Your task to perform on an android device: open app "Google News" Image 0: 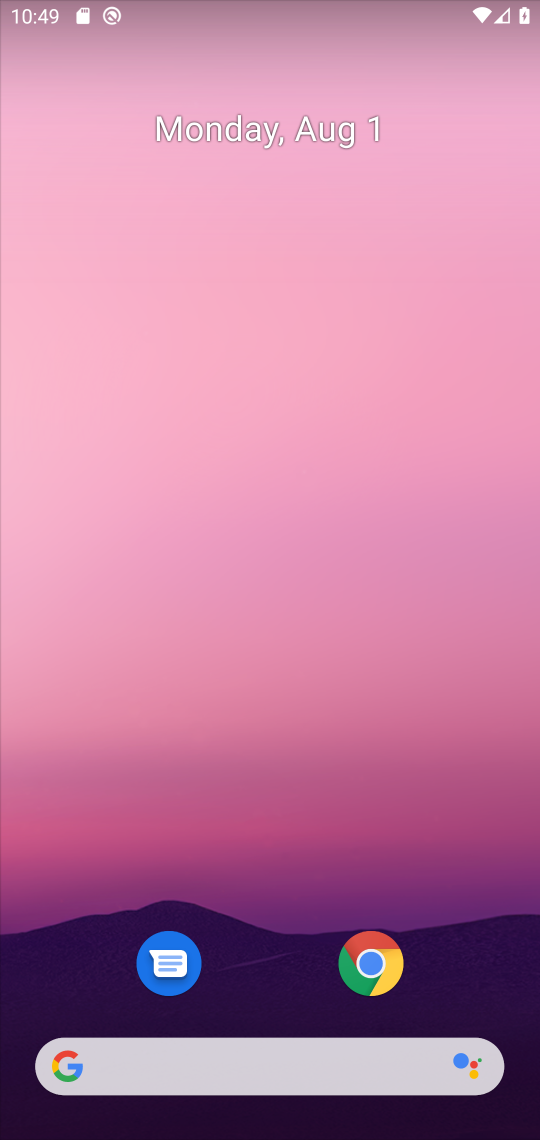
Step 0: drag from (283, 624) to (311, 88)
Your task to perform on an android device: open app "Google News" Image 1: 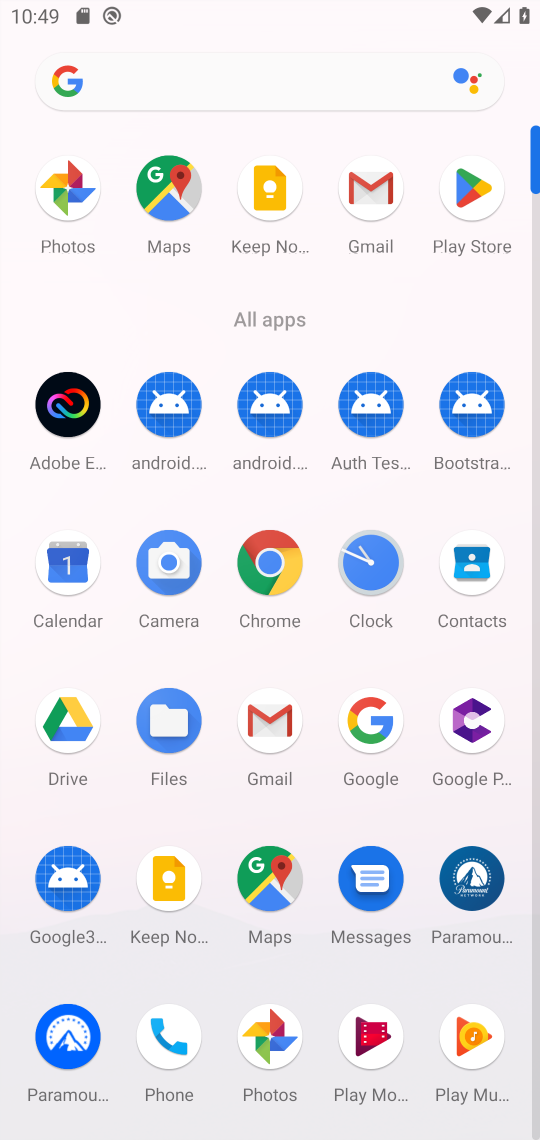
Step 1: click (471, 226)
Your task to perform on an android device: open app "Google News" Image 2: 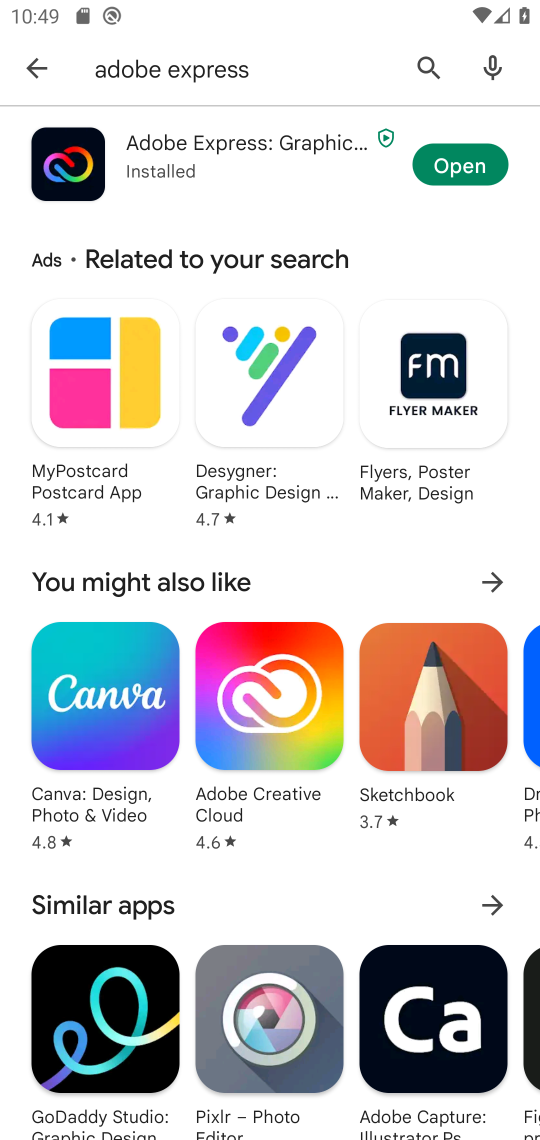
Step 2: click (225, 64)
Your task to perform on an android device: open app "Google News" Image 3: 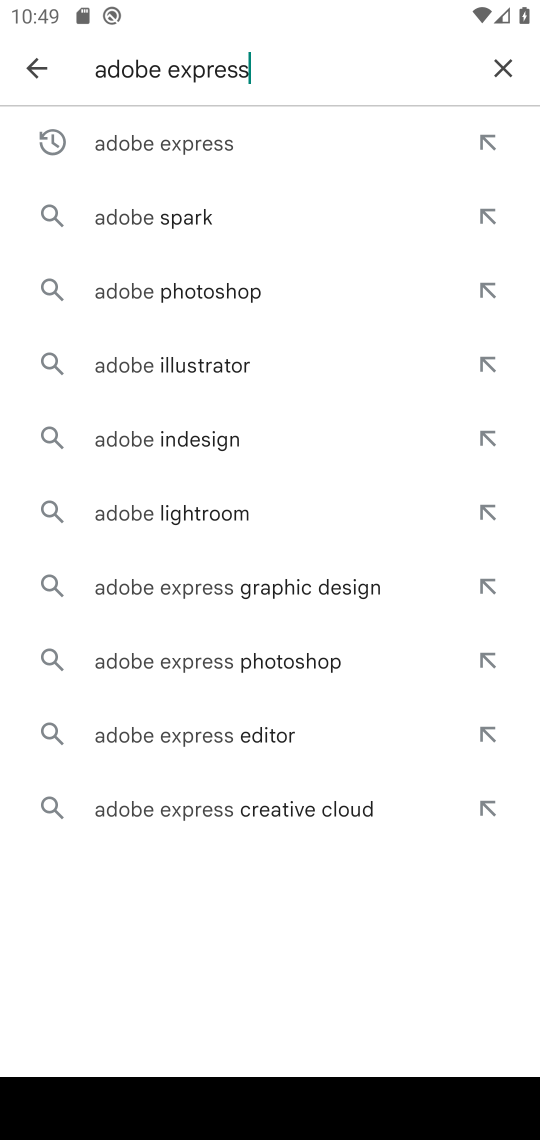
Step 3: click (493, 72)
Your task to perform on an android device: open app "Google News" Image 4: 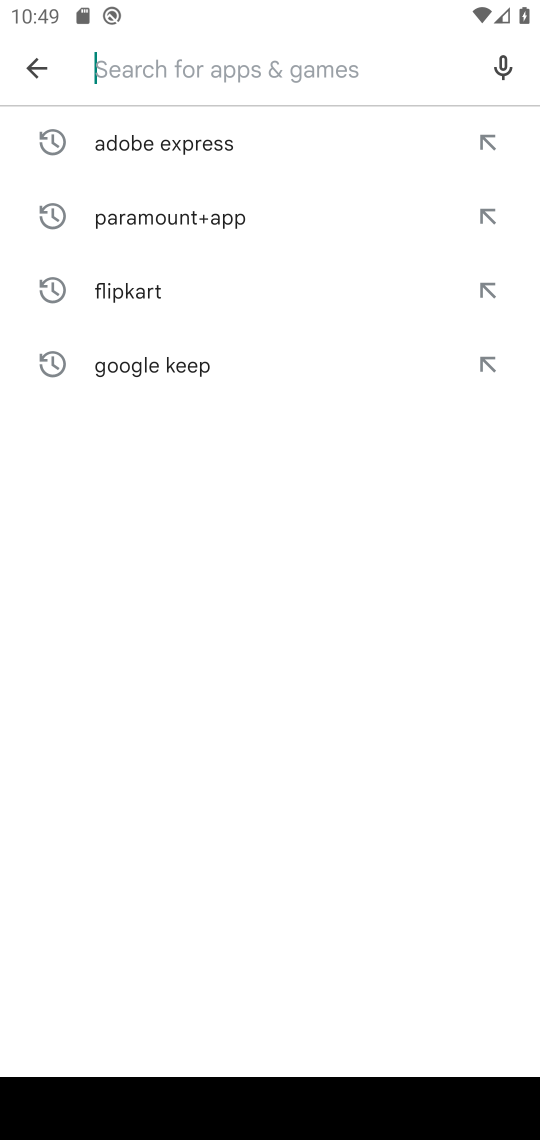
Step 4: type "google news"
Your task to perform on an android device: open app "Google News" Image 5: 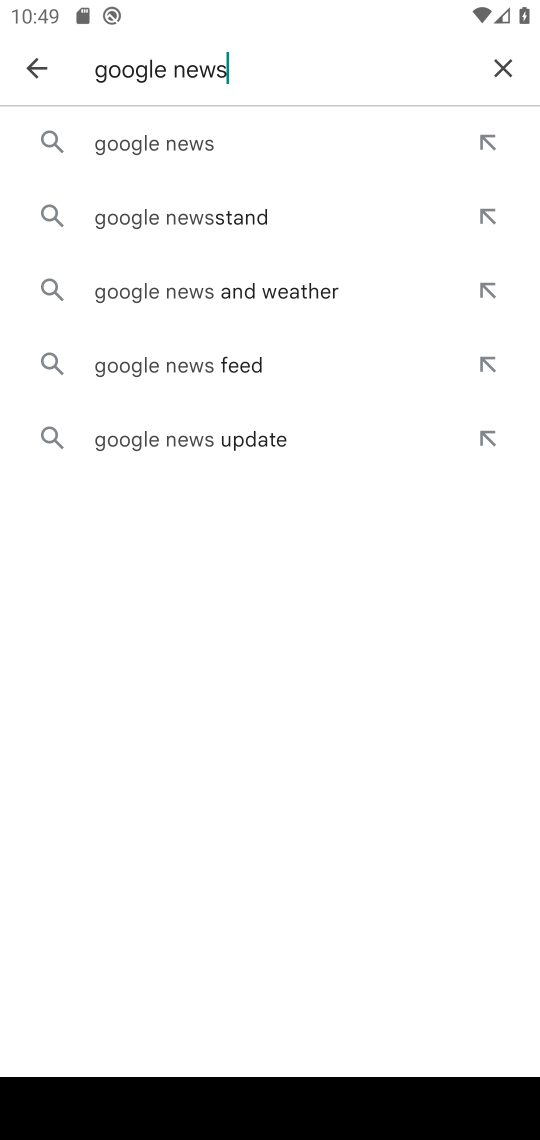
Step 5: click (163, 147)
Your task to perform on an android device: open app "Google News" Image 6: 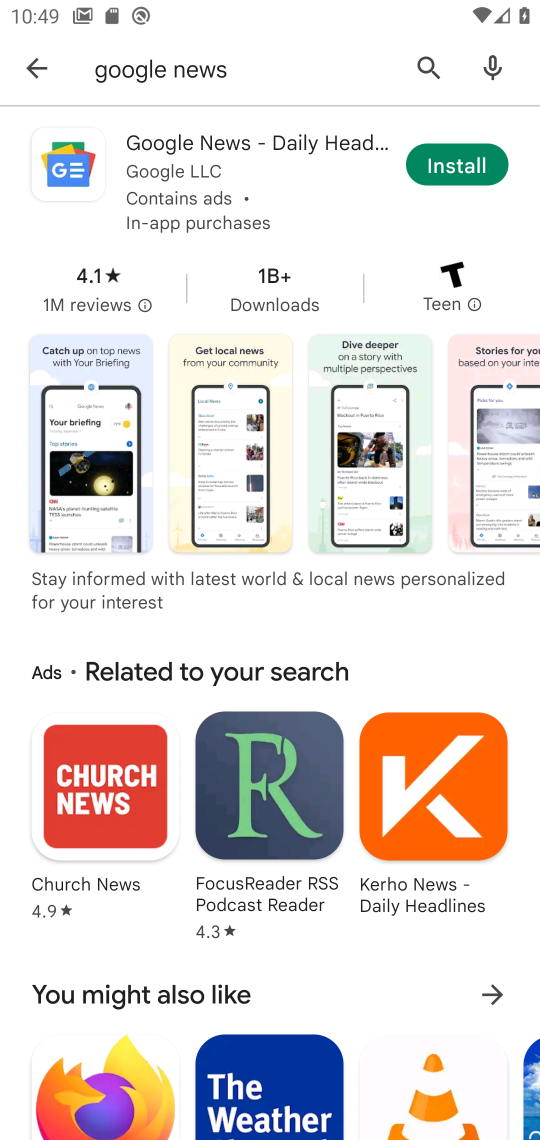
Step 6: task complete